Your task to perform on an android device: Open the stopwatch Image 0: 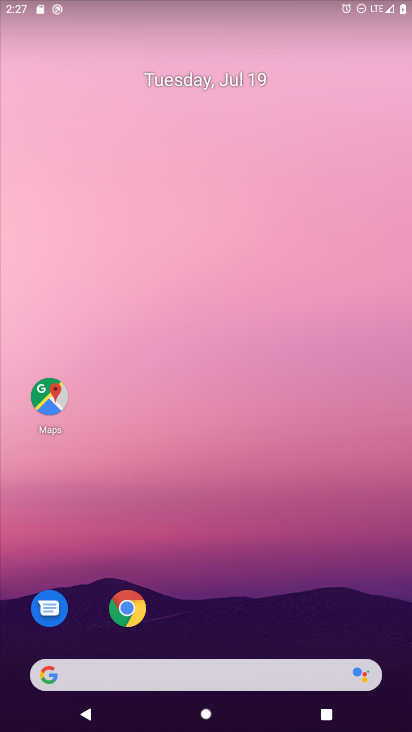
Step 0: drag from (223, 570) to (189, 24)
Your task to perform on an android device: Open the stopwatch Image 1: 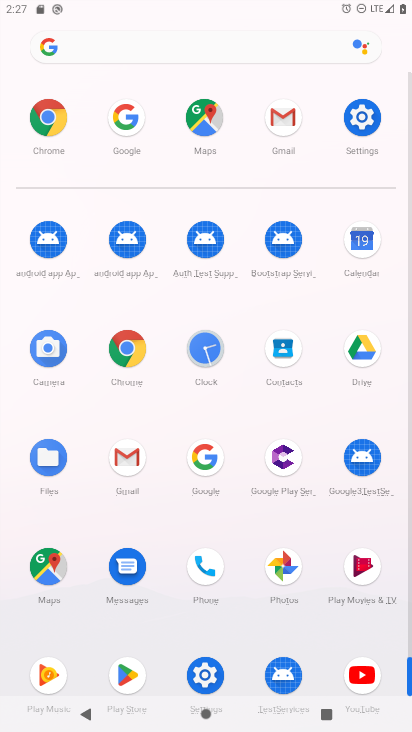
Step 1: click (198, 349)
Your task to perform on an android device: Open the stopwatch Image 2: 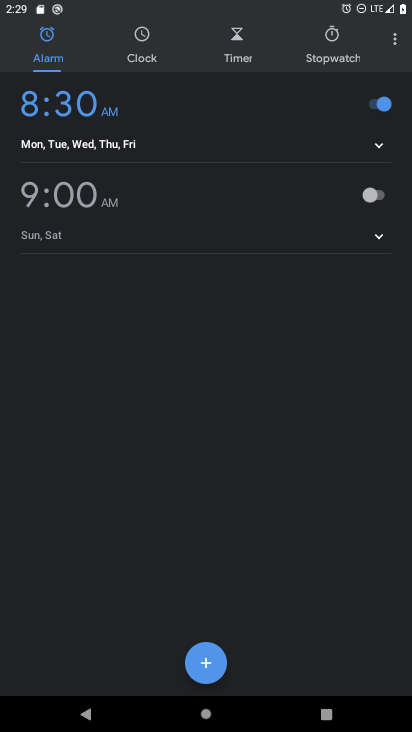
Step 2: click (331, 40)
Your task to perform on an android device: Open the stopwatch Image 3: 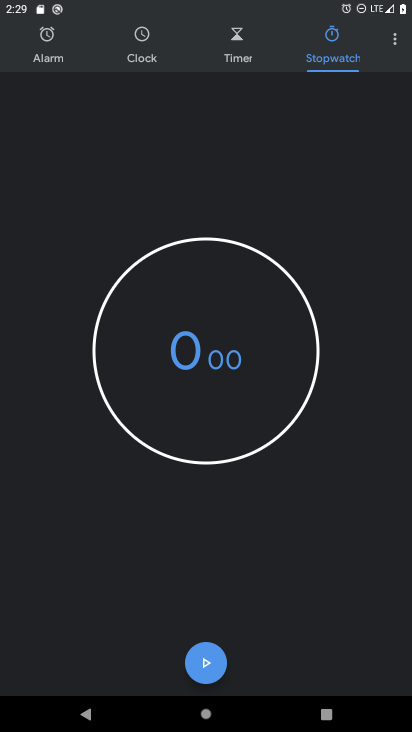
Step 3: task complete